Your task to perform on an android device: Open the stopwatch Image 0: 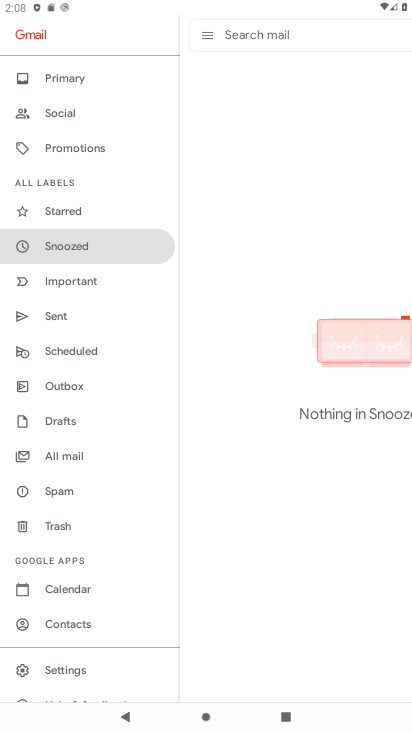
Step 0: press home button
Your task to perform on an android device: Open the stopwatch Image 1: 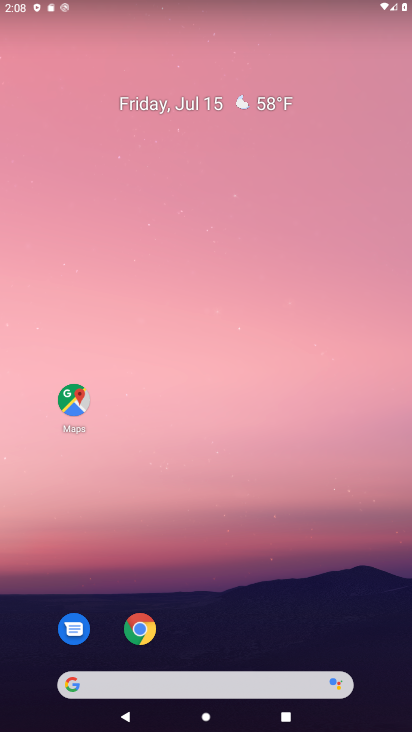
Step 1: drag from (371, 629) to (249, 75)
Your task to perform on an android device: Open the stopwatch Image 2: 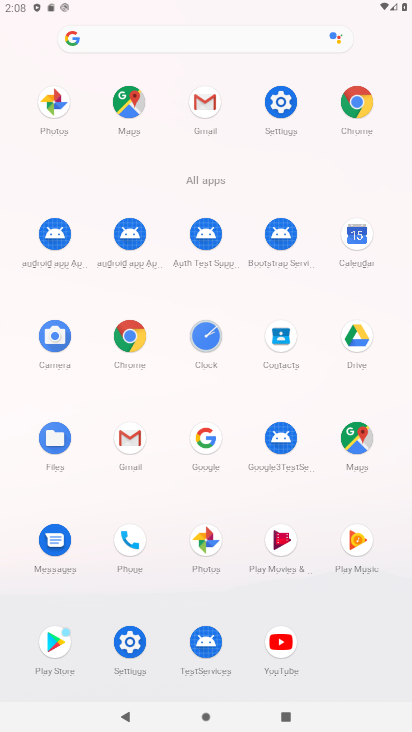
Step 2: click (214, 326)
Your task to perform on an android device: Open the stopwatch Image 3: 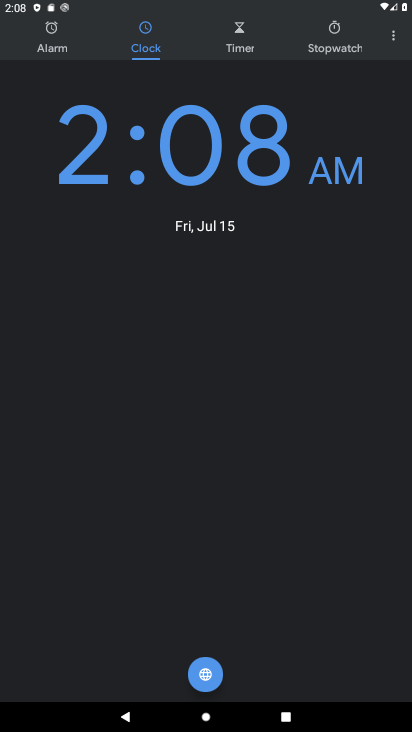
Step 3: click (331, 44)
Your task to perform on an android device: Open the stopwatch Image 4: 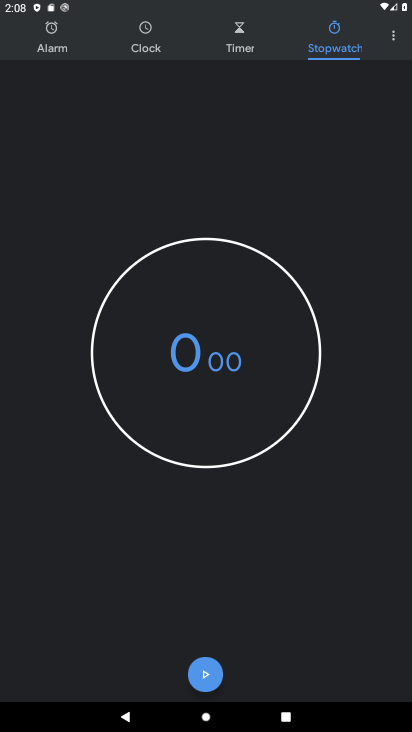
Step 4: task complete